Your task to perform on an android device: Do I have any events today? Image 0: 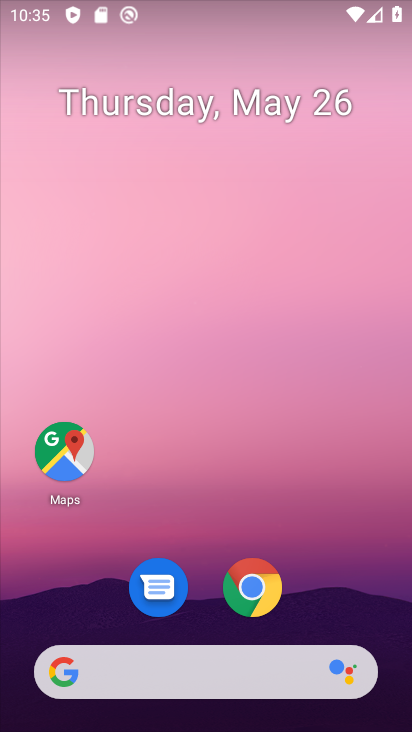
Step 0: drag from (246, 681) to (277, 142)
Your task to perform on an android device: Do I have any events today? Image 1: 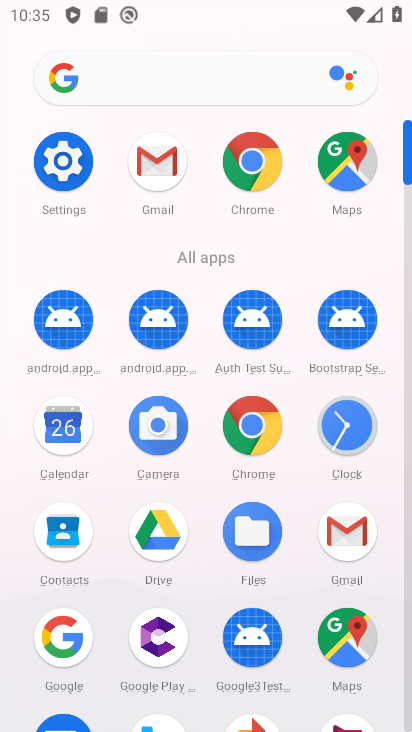
Step 1: click (67, 163)
Your task to perform on an android device: Do I have any events today? Image 2: 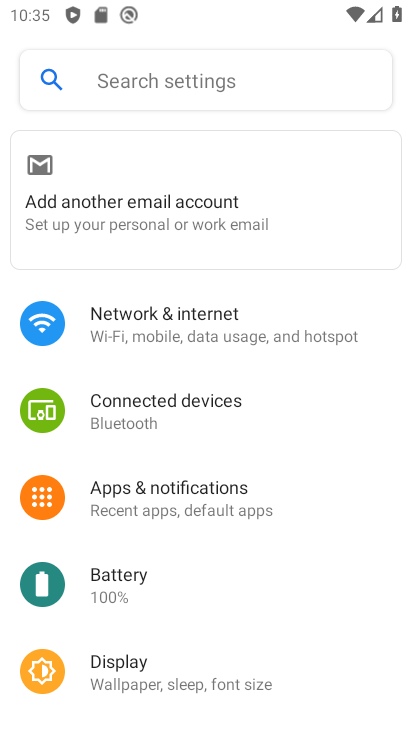
Step 2: press home button
Your task to perform on an android device: Do I have any events today? Image 3: 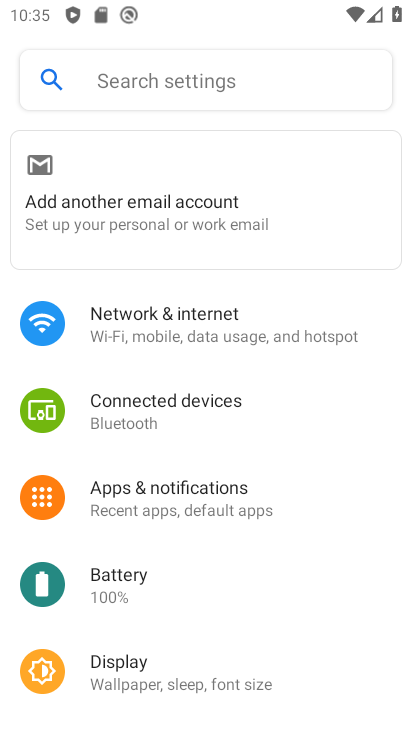
Step 3: press home button
Your task to perform on an android device: Do I have any events today? Image 4: 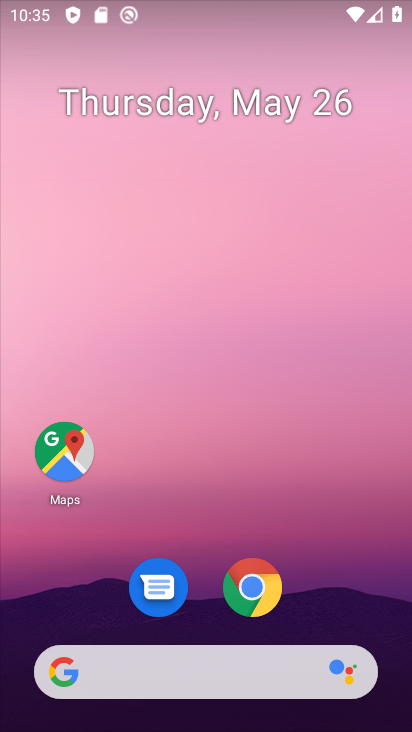
Step 4: drag from (294, 716) to (311, 31)
Your task to perform on an android device: Do I have any events today? Image 5: 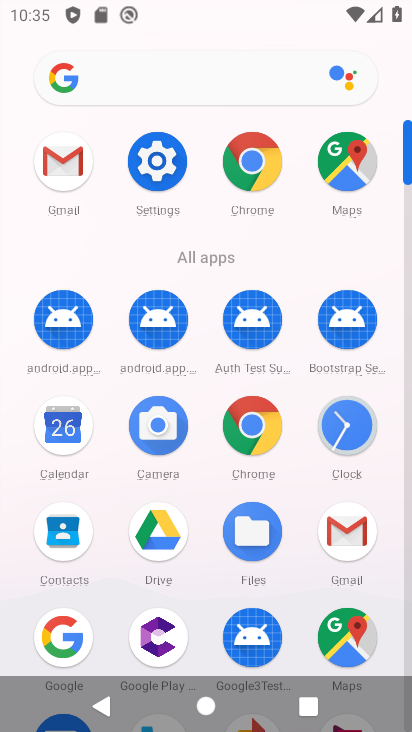
Step 5: click (56, 407)
Your task to perform on an android device: Do I have any events today? Image 6: 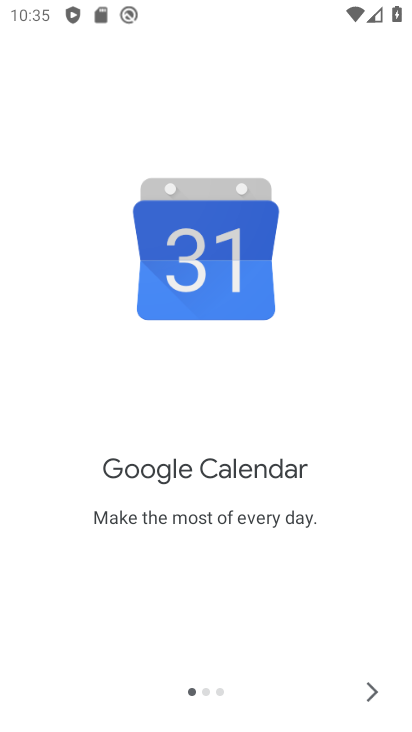
Step 6: click (361, 685)
Your task to perform on an android device: Do I have any events today? Image 7: 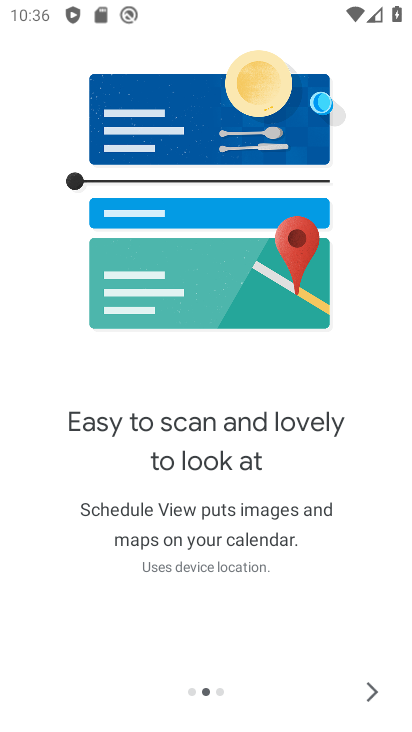
Step 7: click (358, 690)
Your task to perform on an android device: Do I have any events today? Image 8: 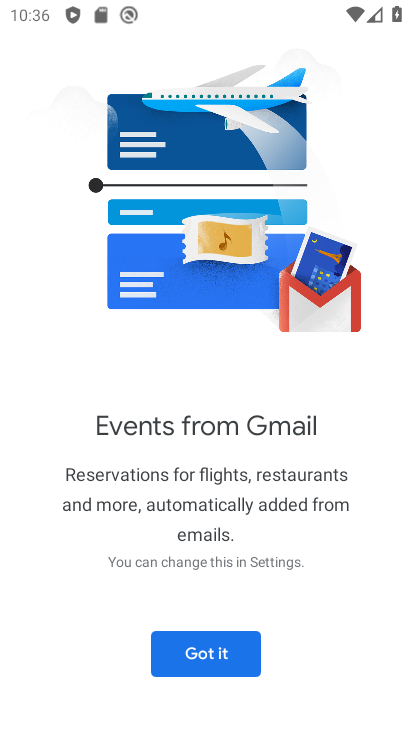
Step 8: click (238, 626)
Your task to perform on an android device: Do I have any events today? Image 9: 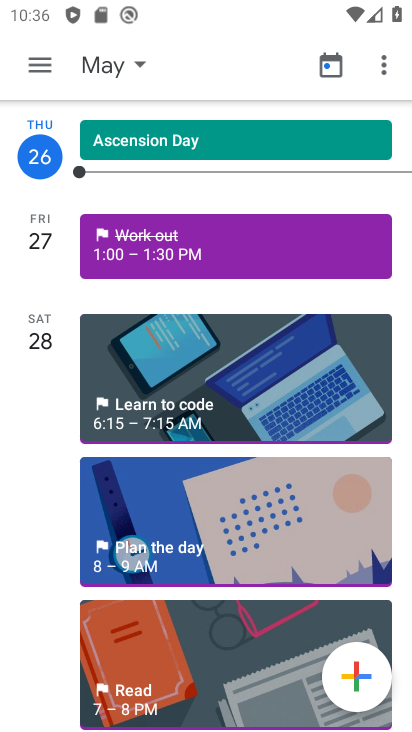
Step 9: task complete